Your task to perform on an android device: toggle pop-ups in chrome Image 0: 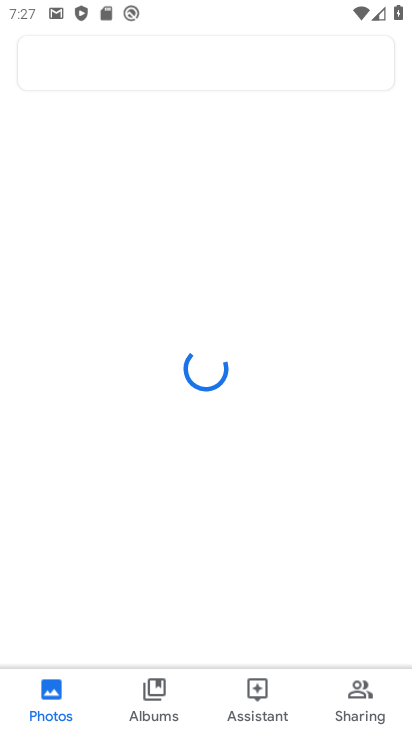
Step 0: press home button
Your task to perform on an android device: toggle pop-ups in chrome Image 1: 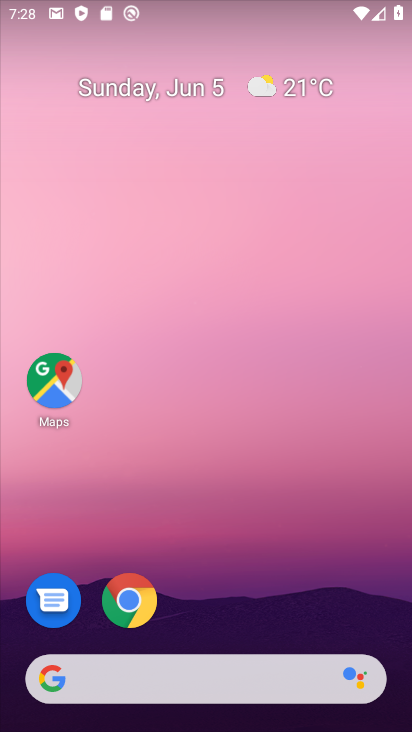
Step 1: click (128, 614)
Your task to perform on an android device: toggle pop-ups in chrome Image 2: 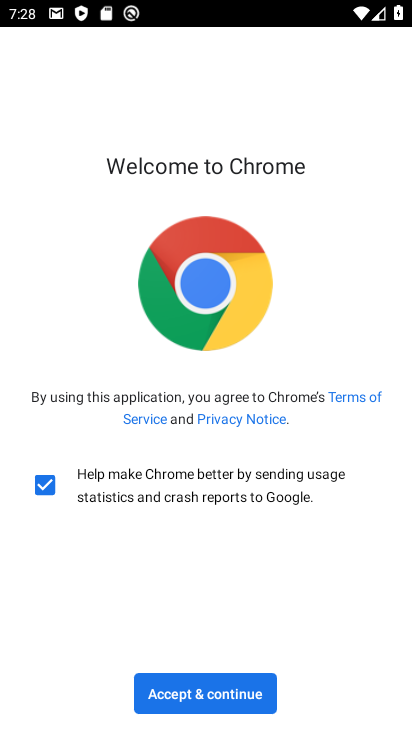
Step 2: click (182, 692)
Your task to perform on an android device: toggle pop-ups in chrome Image 3: 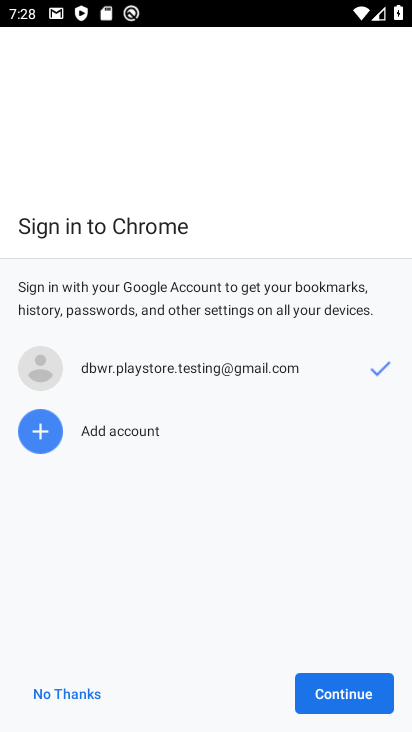
Step 3: click (346, 699)
Your task to perform on an android device: toggle pop-ups in chrome Image 4: 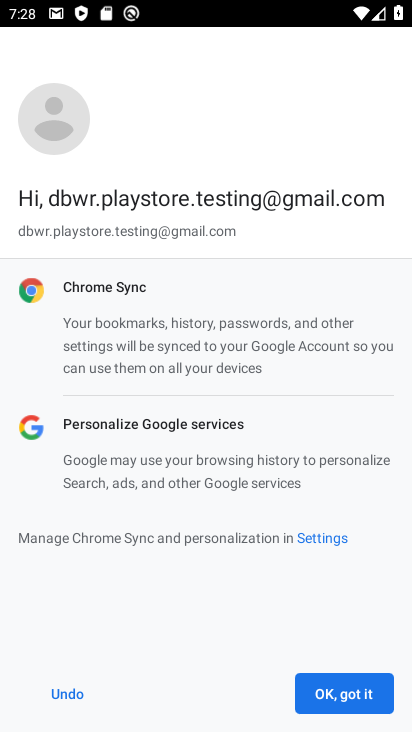
Step 4: click (346, 696)
Your task to perform on an android device: toggle pop-ups in chrome Image 5: 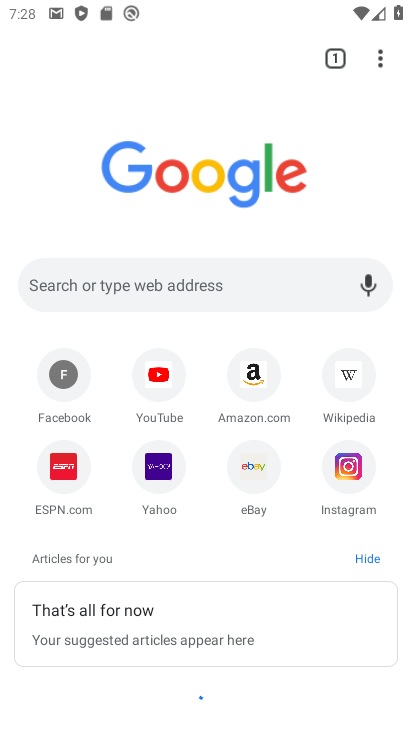
Step 5: click (376, 53)
Your task to perform on an android device: toggle pop-ups in chrome Image 6: 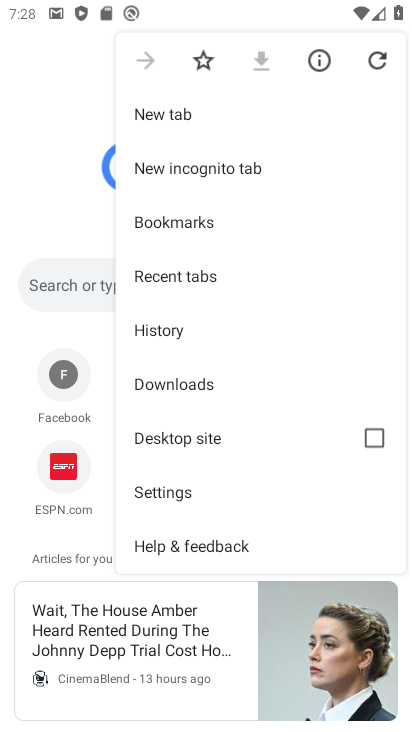
Step 6: click (183, 492)
Your task to perform on an android device: toggle pop-ups in chrome Image 7: 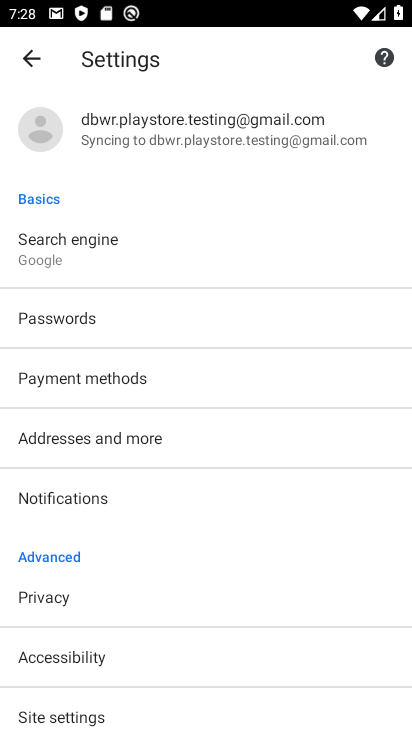
Step 7: drag from (134, 571) to (157, 154)
Your task to perform on an android device: toggle pop-ups in chrome Image 8: 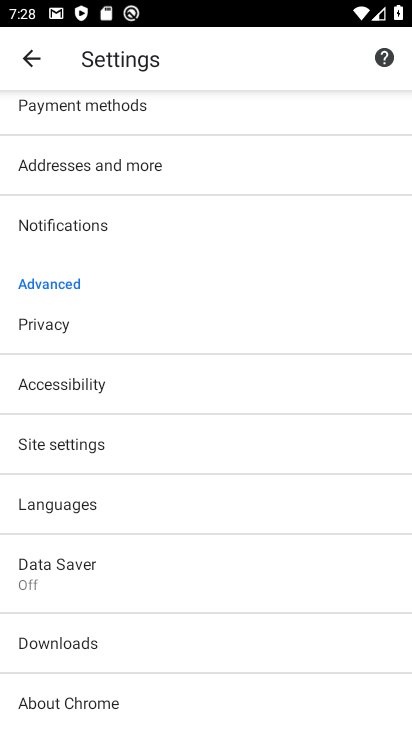
Step 8: click (78, 439)
Your task to perform on an android device: toggle pop-ups in chrome Image 9: 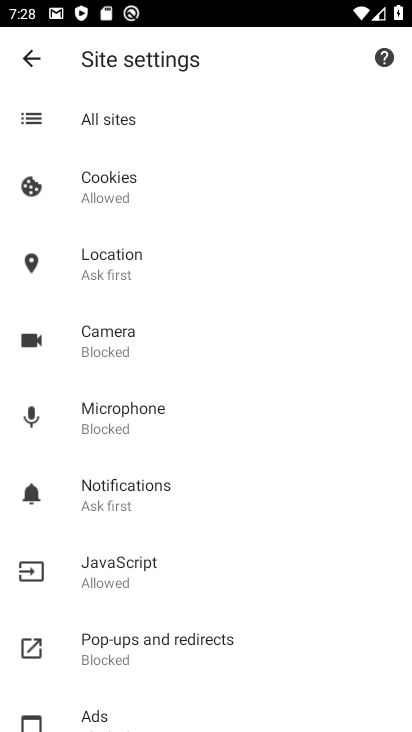
Step 9: click (142, 645)
Your task to perform on an android device: toggle pop-ups in chrome Image 10: 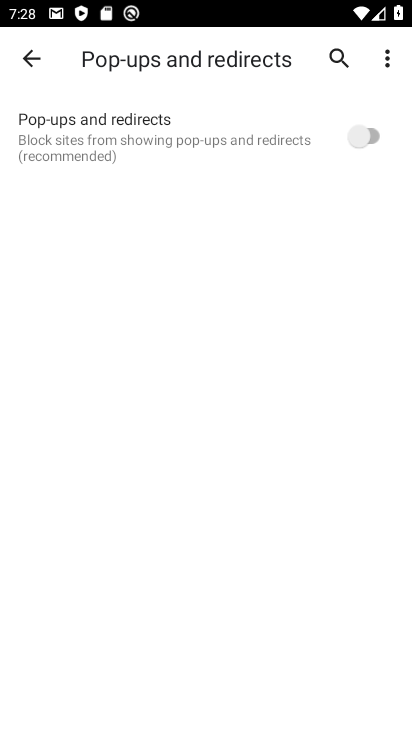
Step 10: click (360, 129)
Your task to perform on an android device: toggle pop-ups in chrome Image 11: 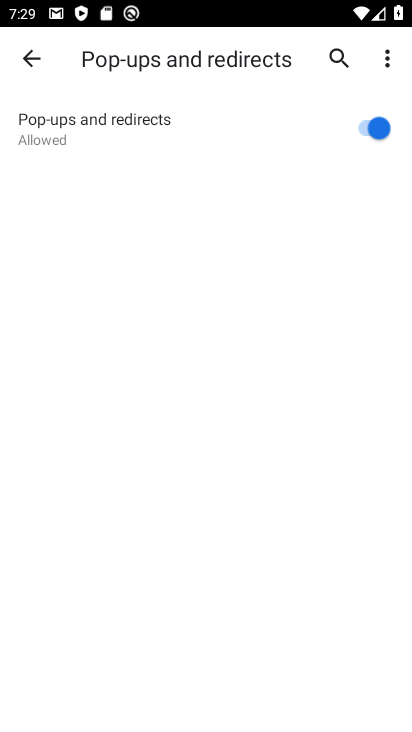
Step 11: task complete